Your task to perform on an android device: Open calendar and show me the fourth week of next month Image 0: 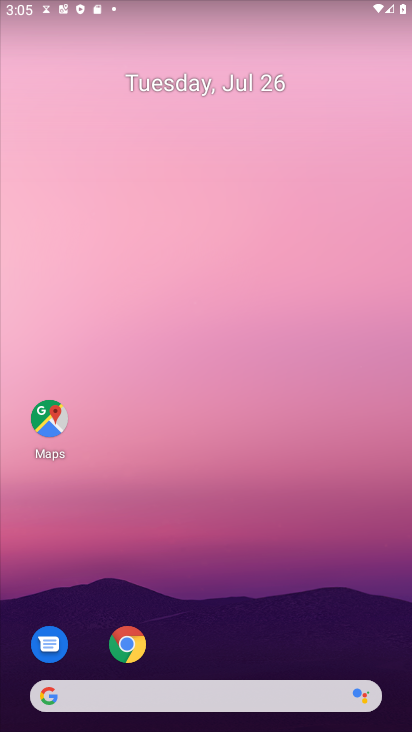
Step 0: press home button
Your task to perform on an android device: Open calendar and show me the fourth week of next month Image 1: 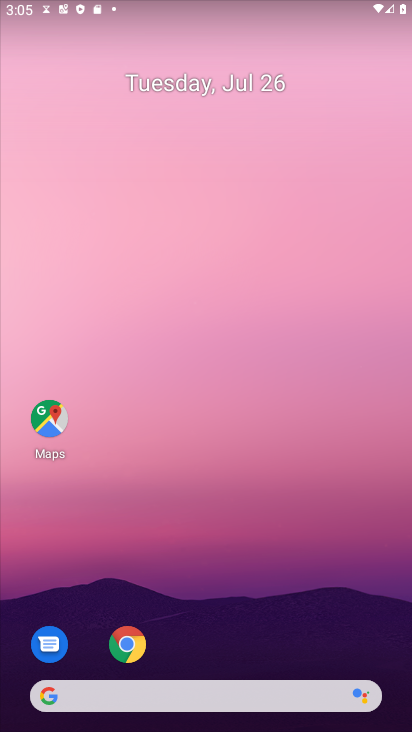
Step 1: drag from (238, 635) to (234, 68)
Your task to perform on an android device: Open calendar and show me the fourth week of next month Image 2: 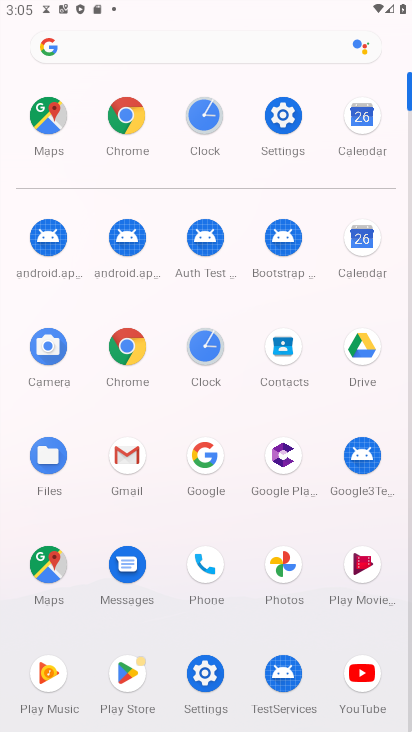
Step 2: click (368, 115)
Your task to perform on an android device: Open calendar and show me the fourth week of next month Image 3: 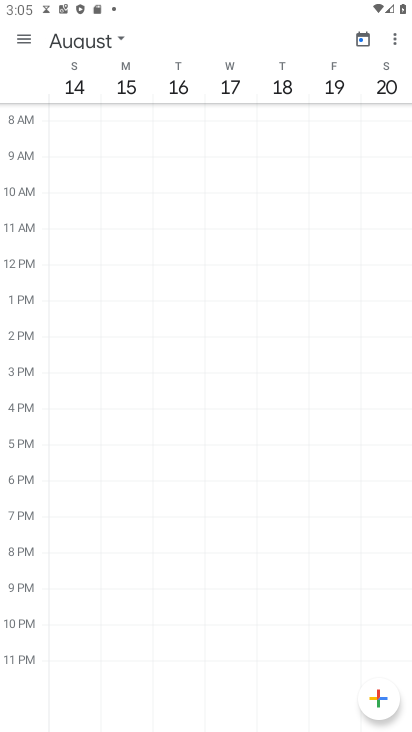
Step 3: task complete